Your task to perform on an android device: What is the recent news? Image 0: 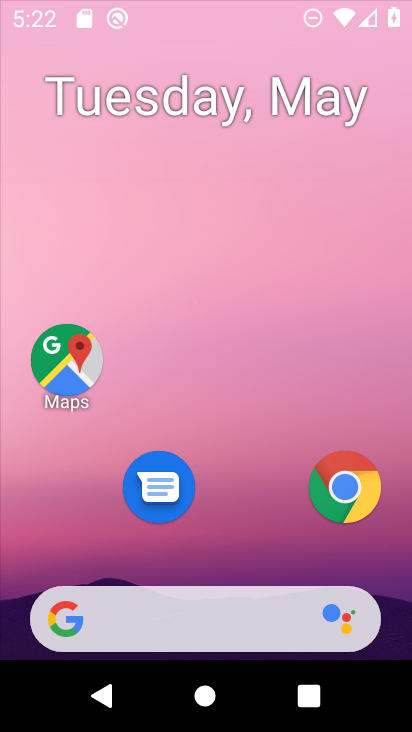
Step 0: drag from (218, 301) to (213, 133)
Your task to perform on an android device: What is the recent news? Image 1: 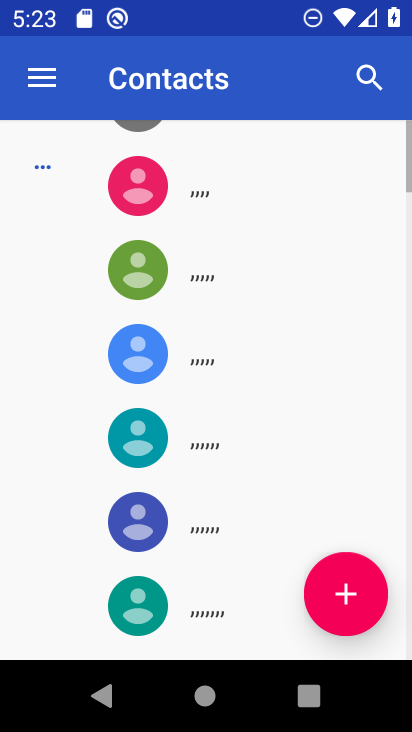
Step 1: press home button
Your task to perform on an android device: What is the recent news? Image 2: 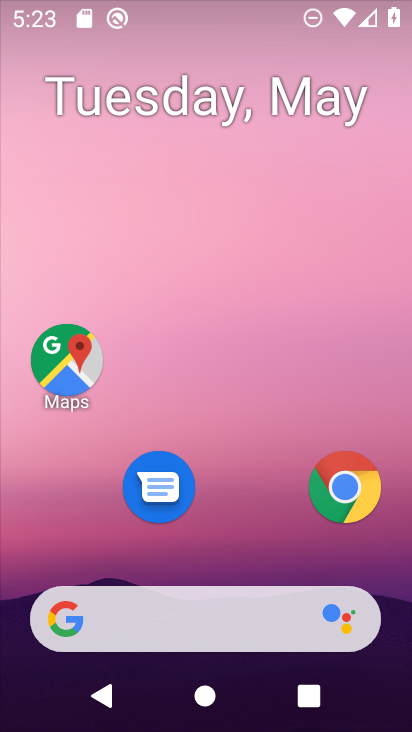
Step 2: click (196, 607)
Your task to perform on an android device: What is the recent news? Image 3: 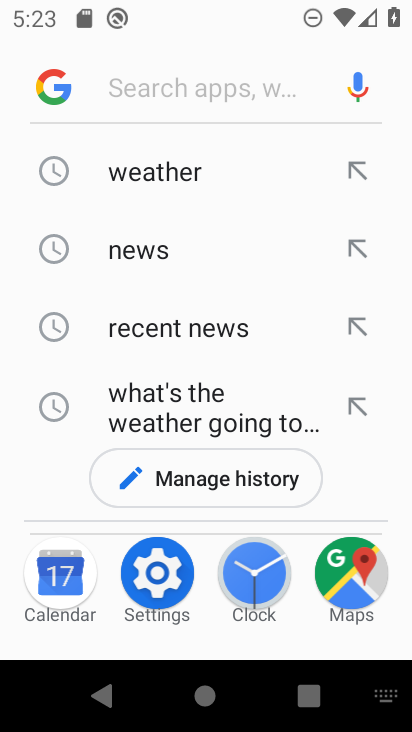
Step 3: click (141, 352)
Your task to perform on an android device: What is the recent news? Image 4: 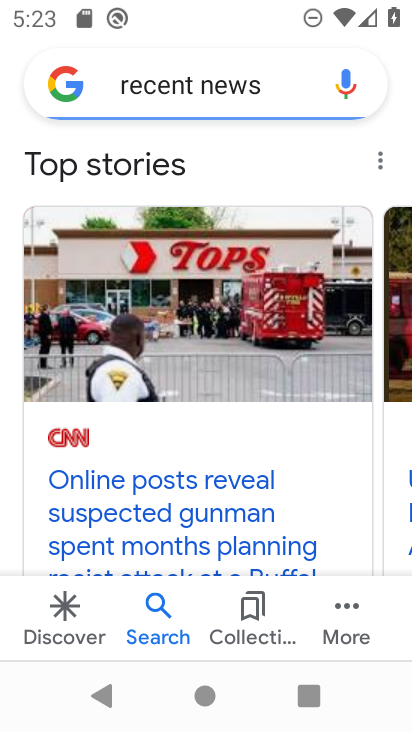
Step 4: task complete